Your task to perform on an android device: check google app version Image 0: 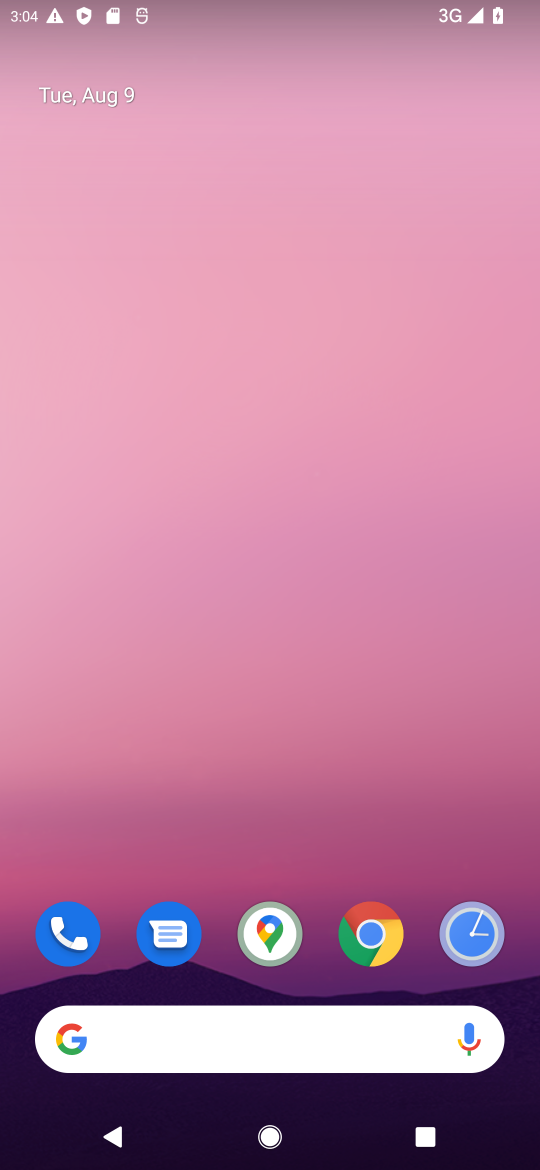
Step 0: drag from (316, 985) to (300, 0)
Your task to perform on an android device: check google app version Image 1: 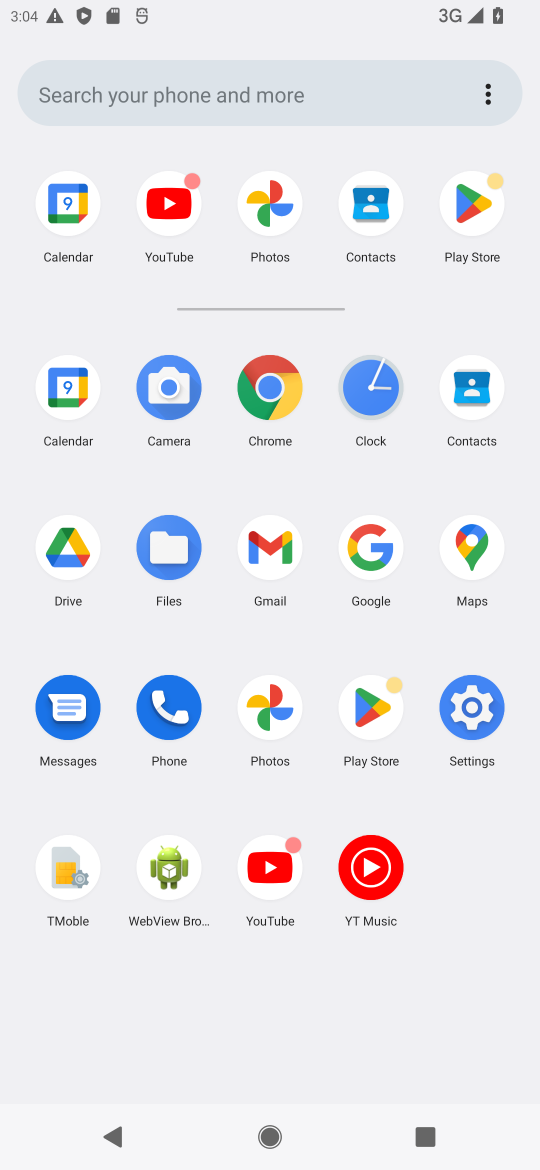
Step 1: click (281, 430)
Your task to perform on an android device: check google app version Image 2: 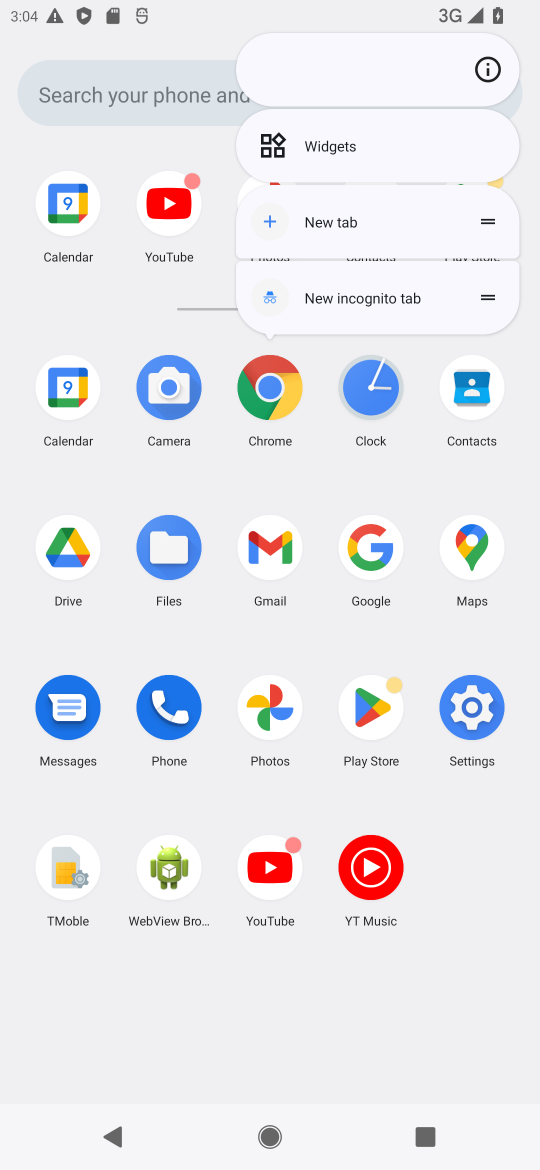
Step 2: click (499, 67)
Your task to perform on an android device: check google app version Image 3: 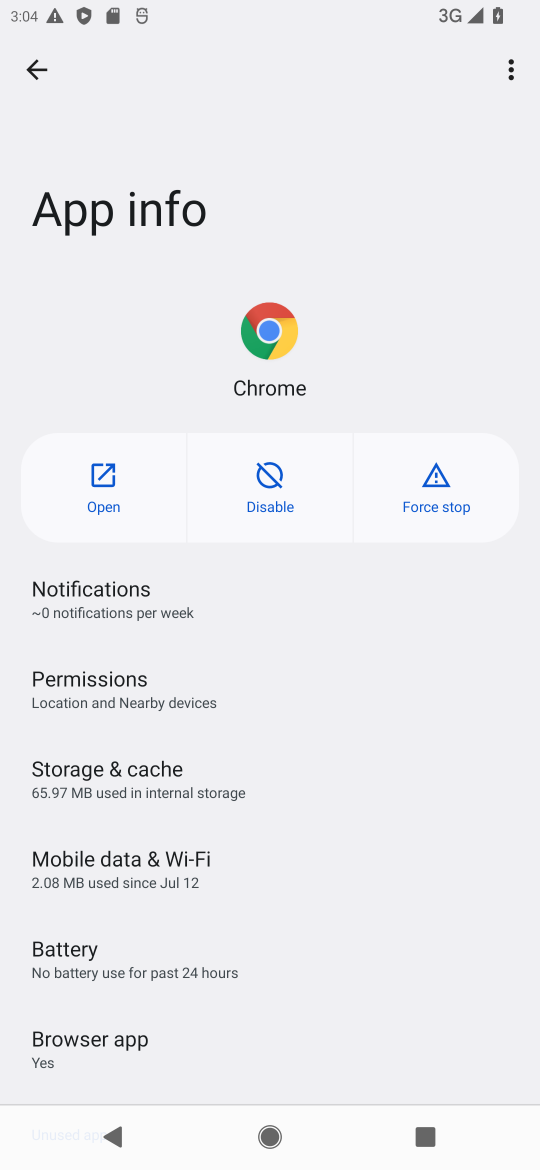
Step 3: task complete